Your task to perform on an android device: open app "DoorDash - Dasher" (install if not already installed) Image 0: 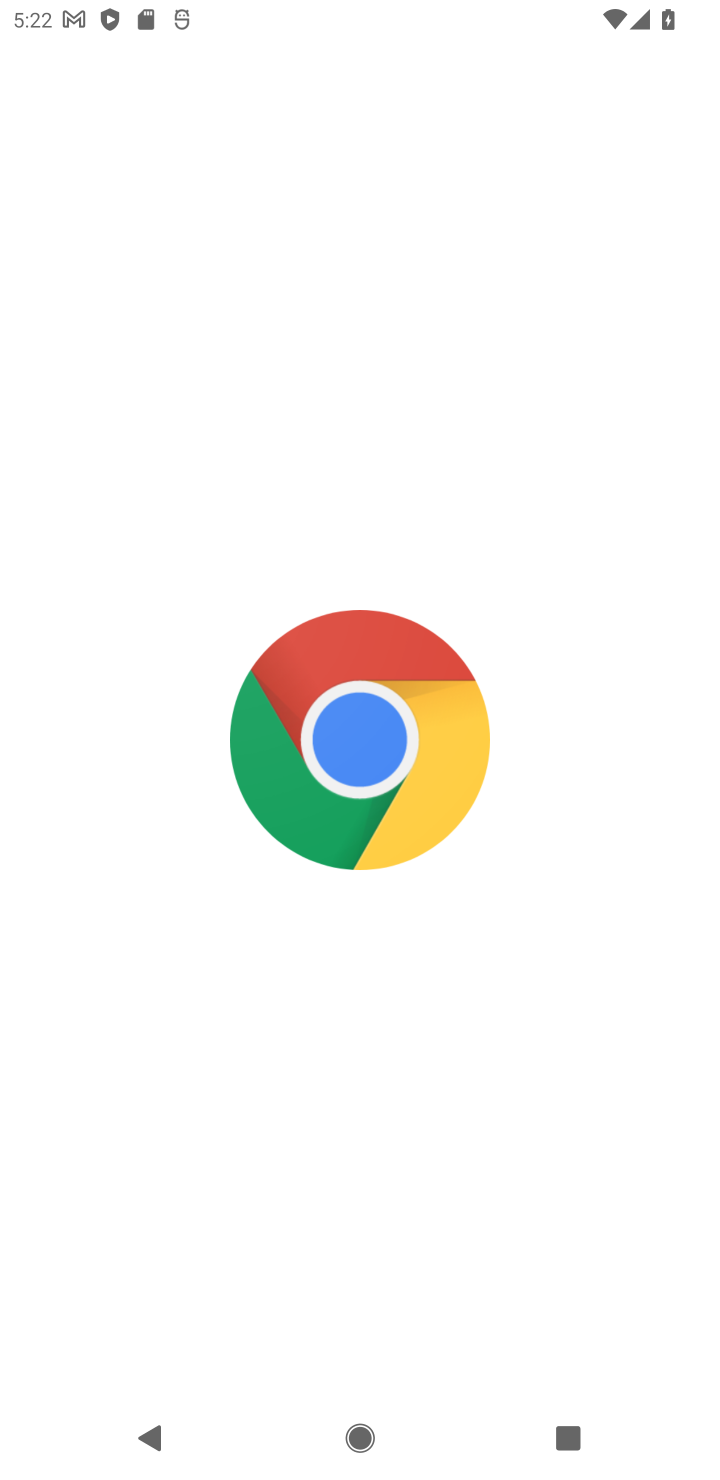
Step 0: press home button
Your task to perform on an android device: open app "DoorDash - Dasher" (install if not already installed) Image 1: 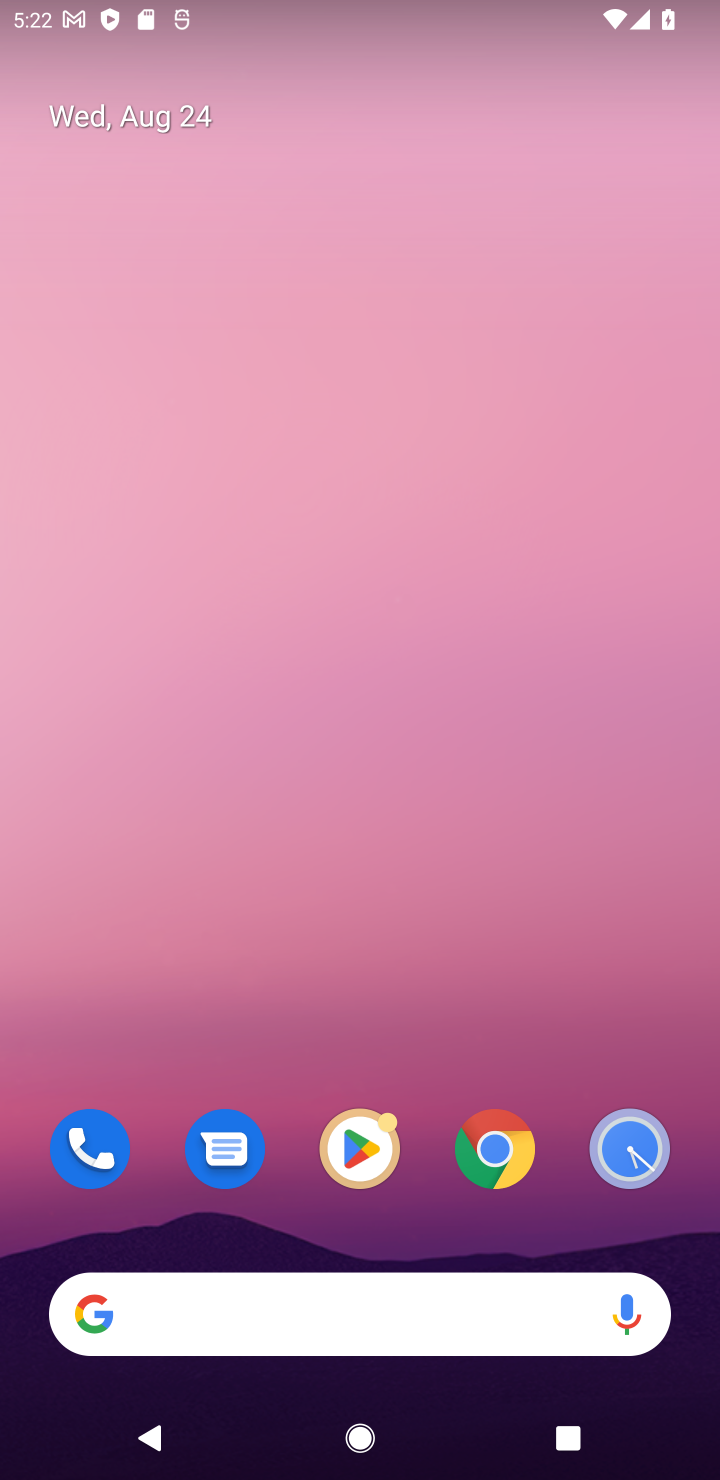
Step 1: click (353, 1151)
Your task to perform on an android device: open app "DoorDash - Dasher" (install if not already installed) Image 2: 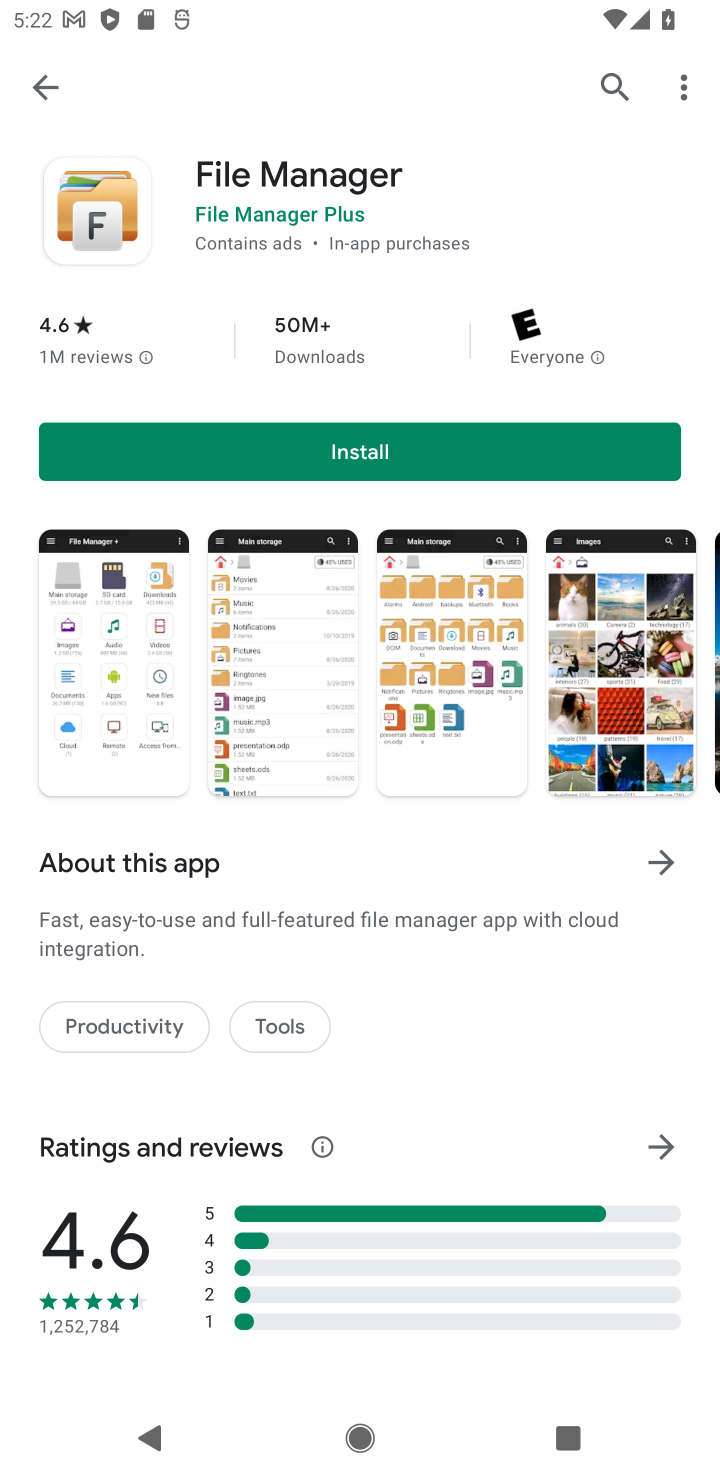
Step 2: click (611, 86)
Your task to perform on an android device: open app "DoorDash - Dasher" (install if not already installed) Image 3: 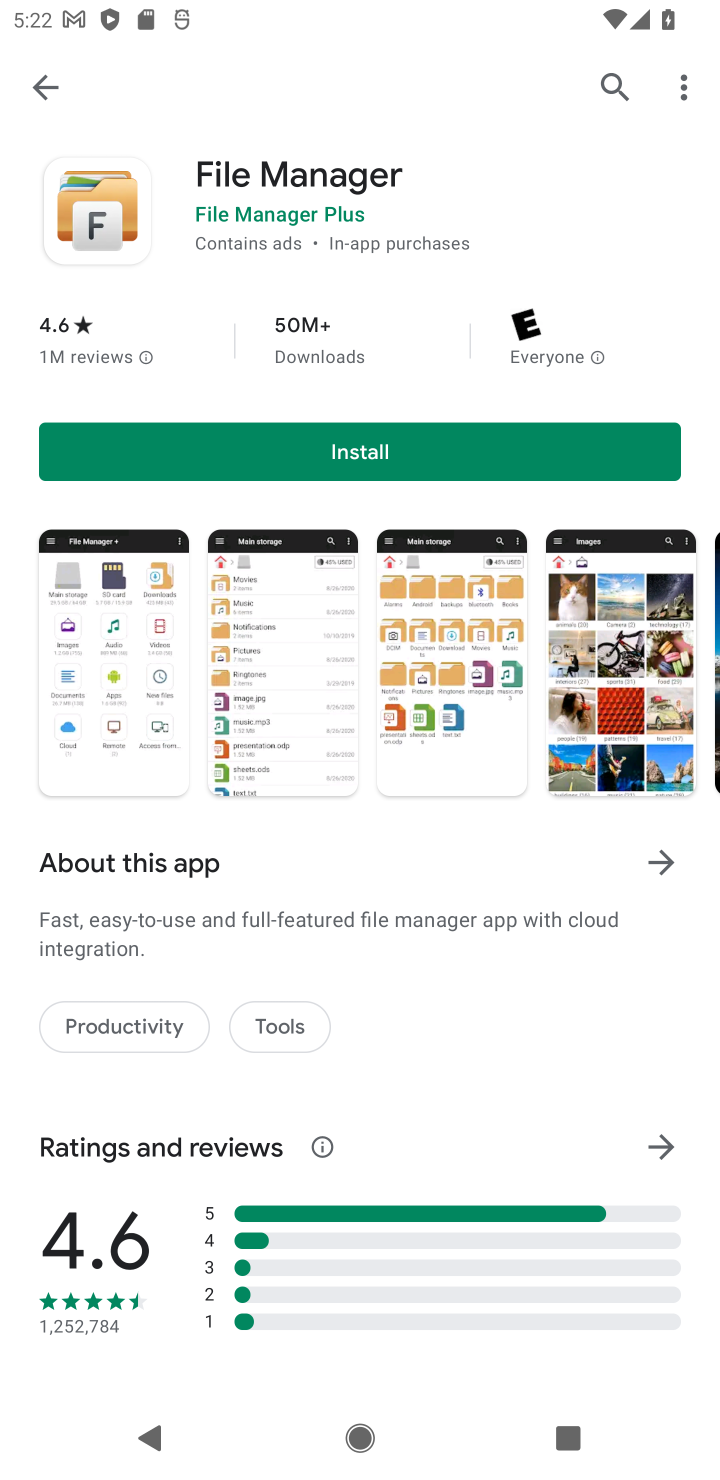
Step 3: click (609, 88)
Your task to perform on an android device: open app "DoorDash - Dasher" (install if not already installed) Image 4: 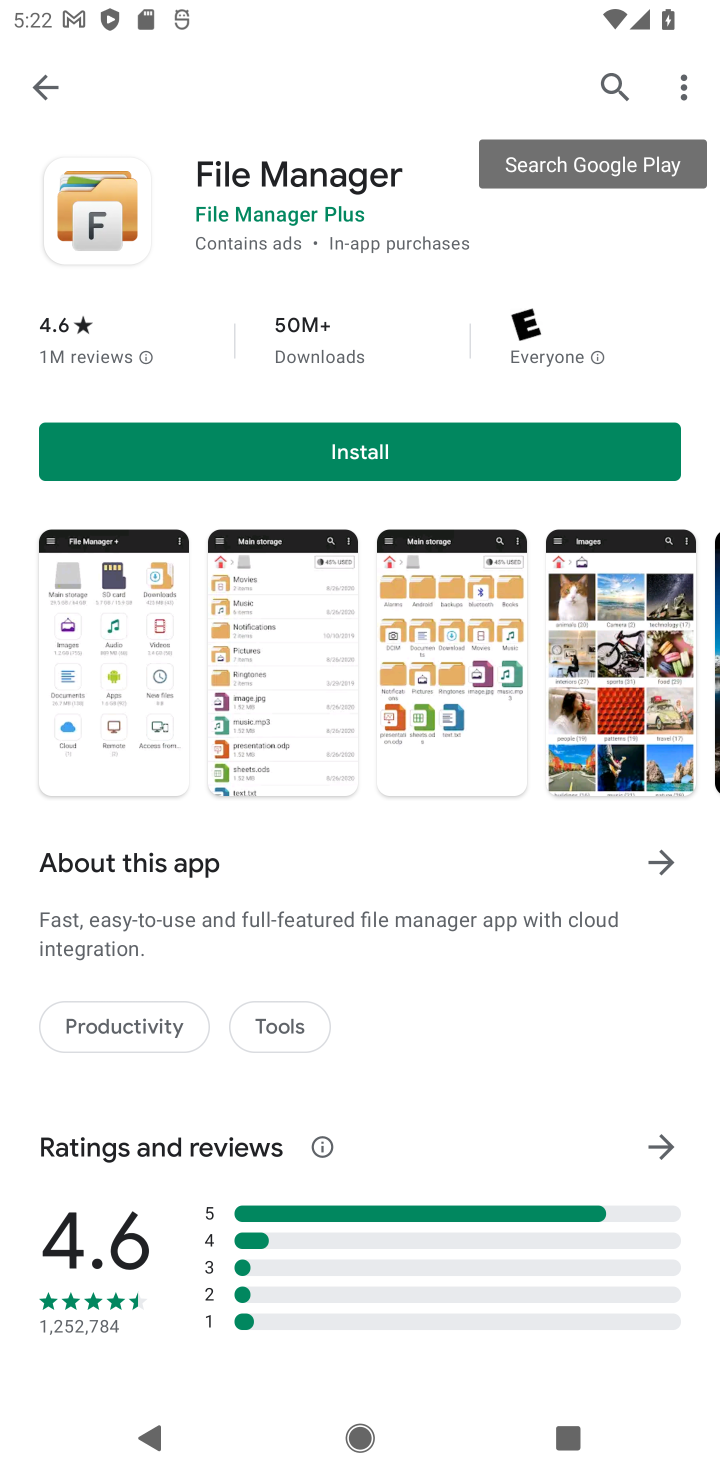
Step 4: click (607, 73)
Your task to perform on an android device: open app "DoorDash - Dasher" (install if not already installed) Image 5: 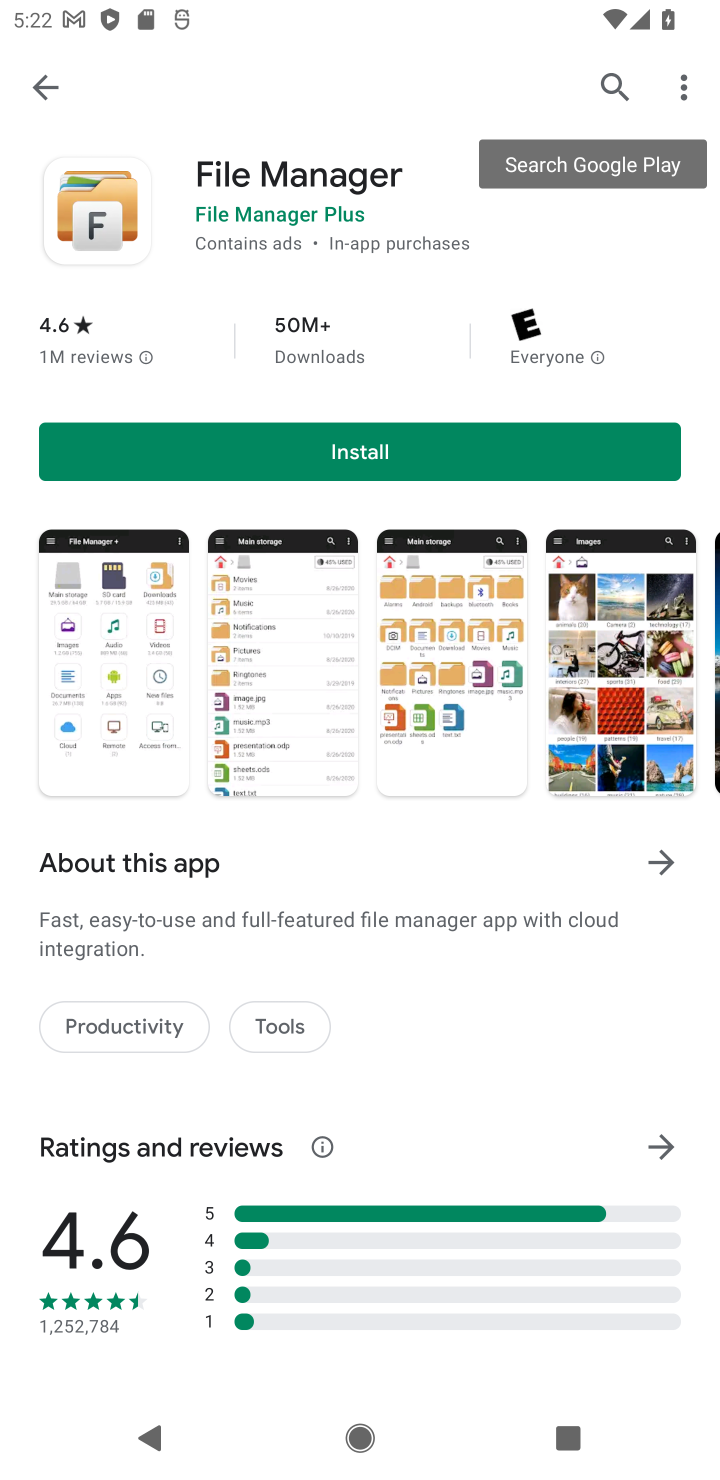
Step 5: click (607, 81)
Your task to perform on an android device: open app "DoorDash - Dasher" (install if not already installed) Image 6: 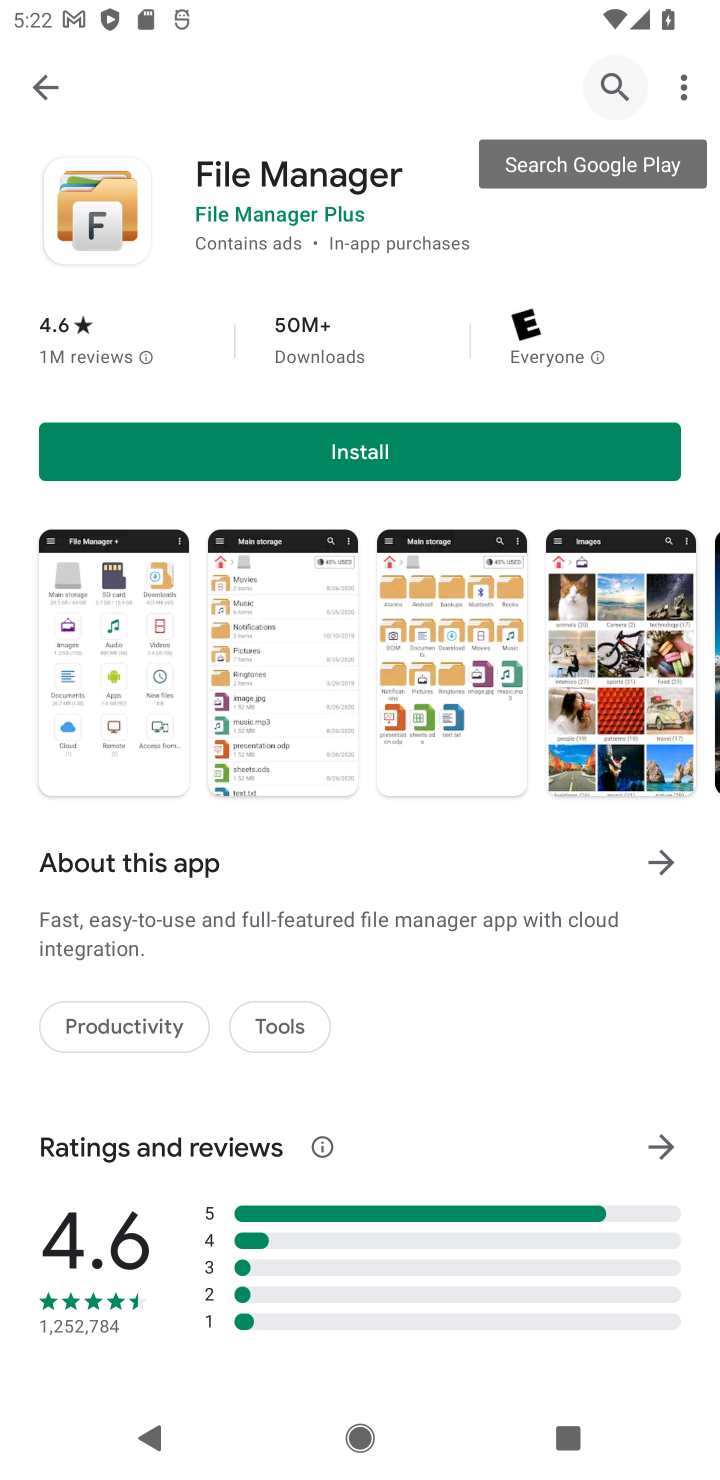
Step 6: click (570, 86)
Your task to perform on an android device: open app "DoorDash - Dasher" (install if not already installed) Image 7: 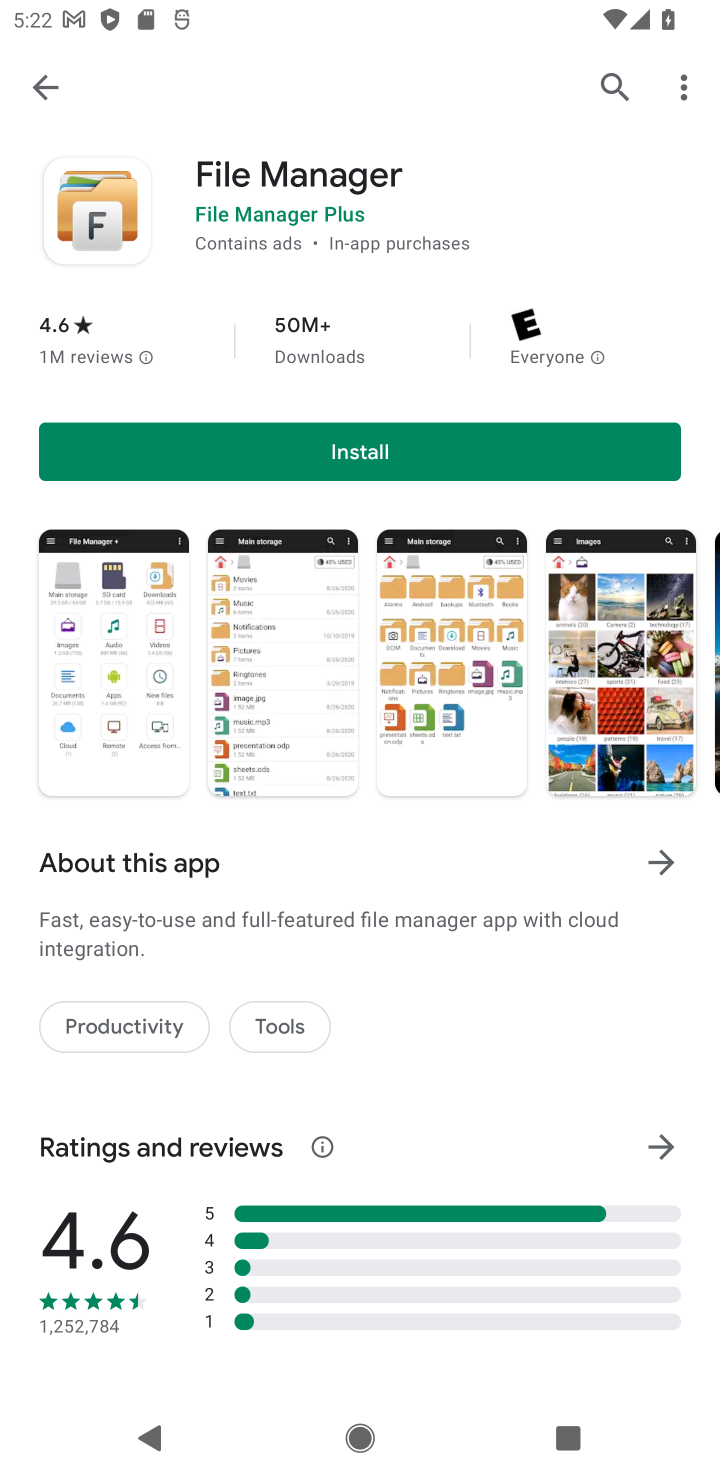
Step 7: click (585, 75)
Your task to perform on an android device: open app "DoorDash - Dasher" (install if not already installed) Image 8: 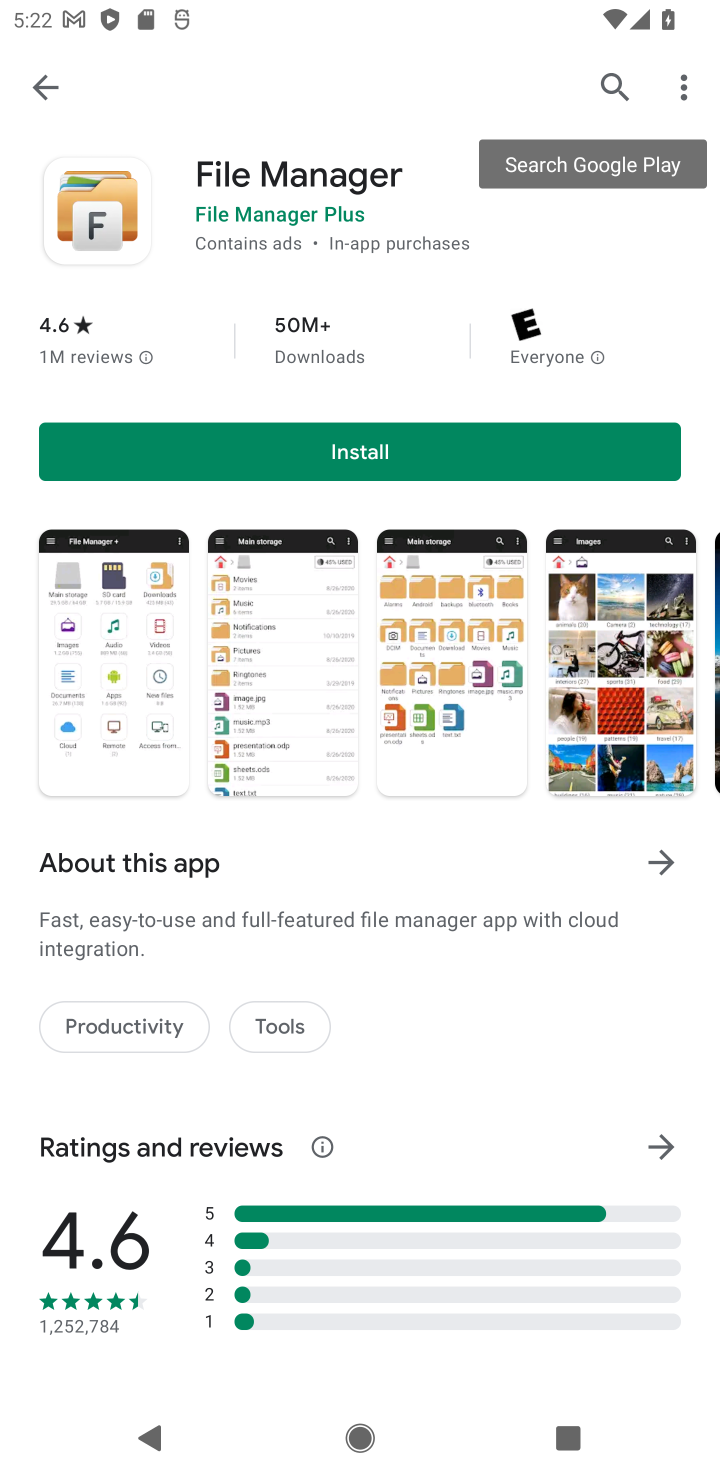
Step 8: click (598, 81)
Your task to perform on an android device: open app "DoorDash - Dasher" (install if not already installed) Image 9: 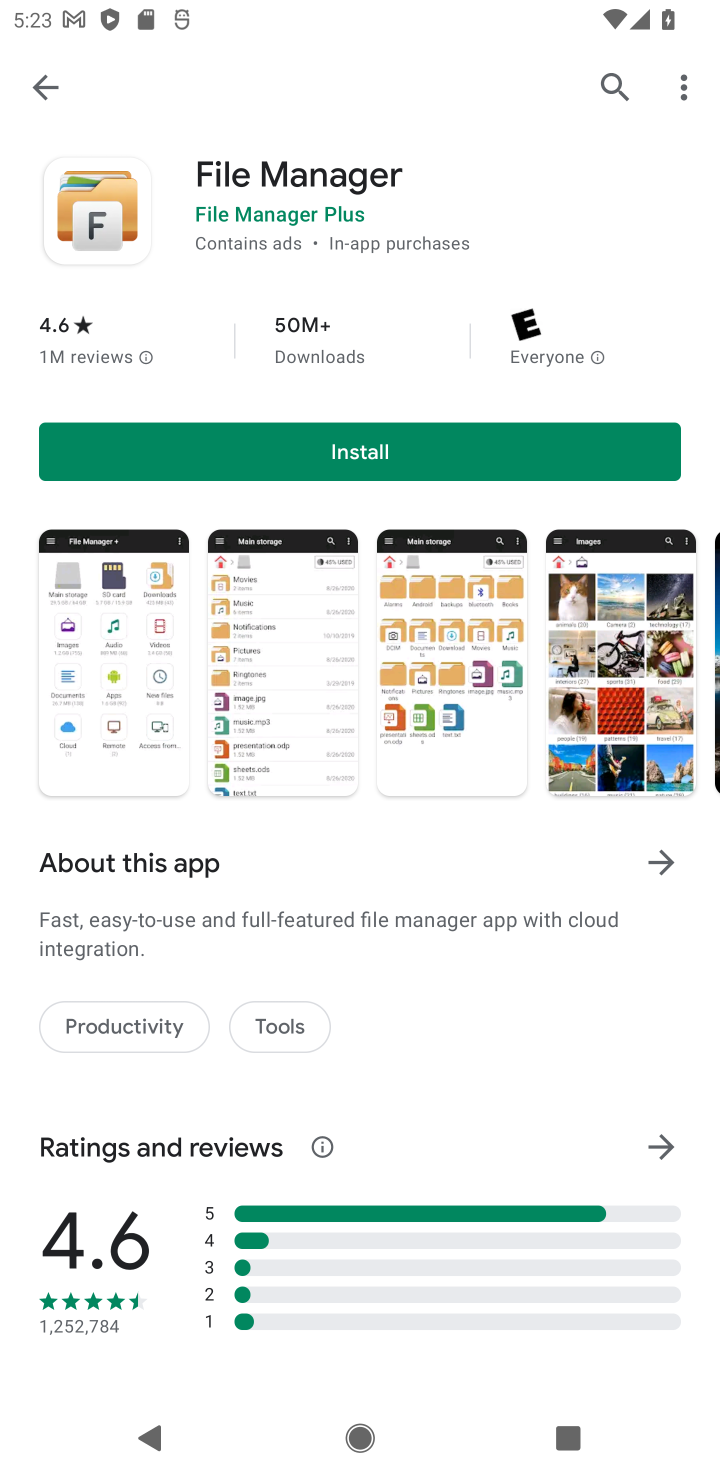
Step 9: press back button
Your task to perform on an android device: open app "DoorDash - Dasher" (install if not already installed) Image 10: 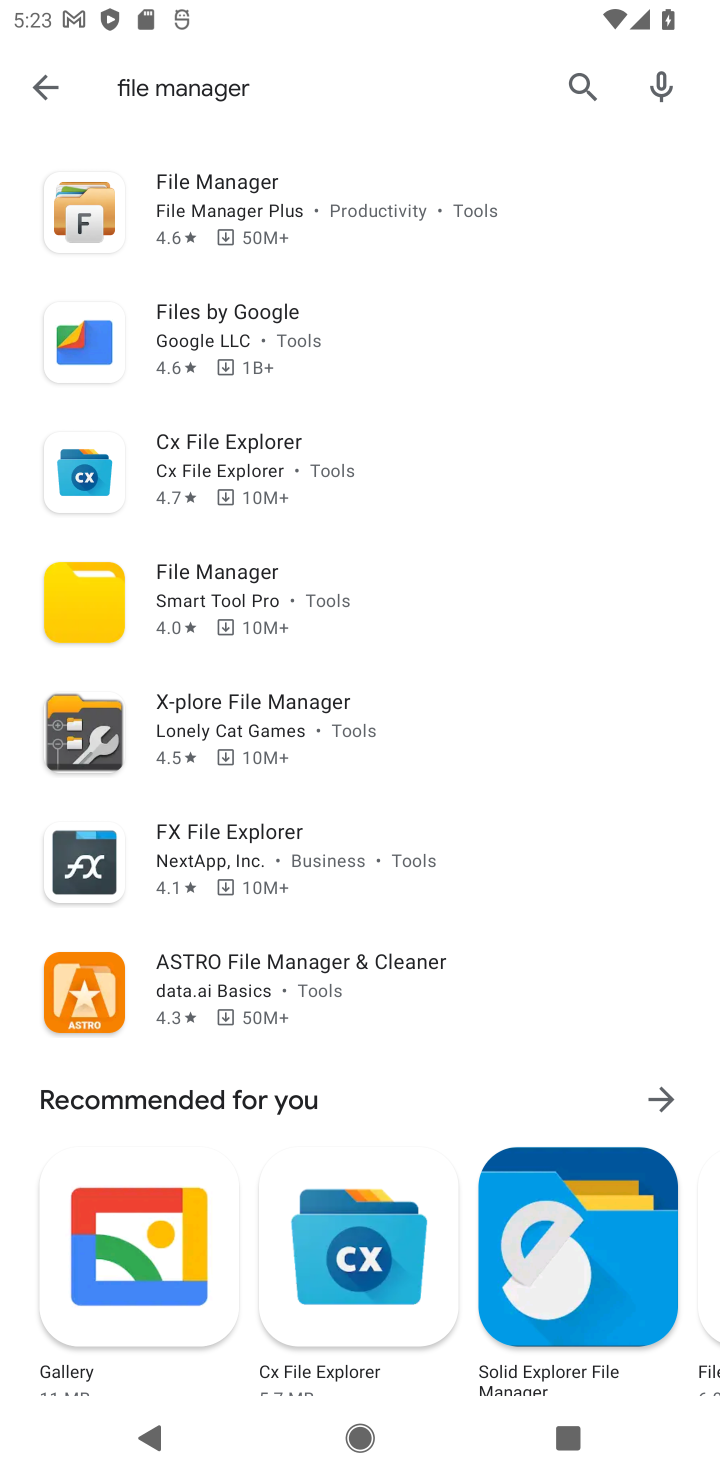
Step 10: click (572, 80)
Your task to perform on an android device: open app "DoorDash - Dasher" (install if not already installed) Image 11: 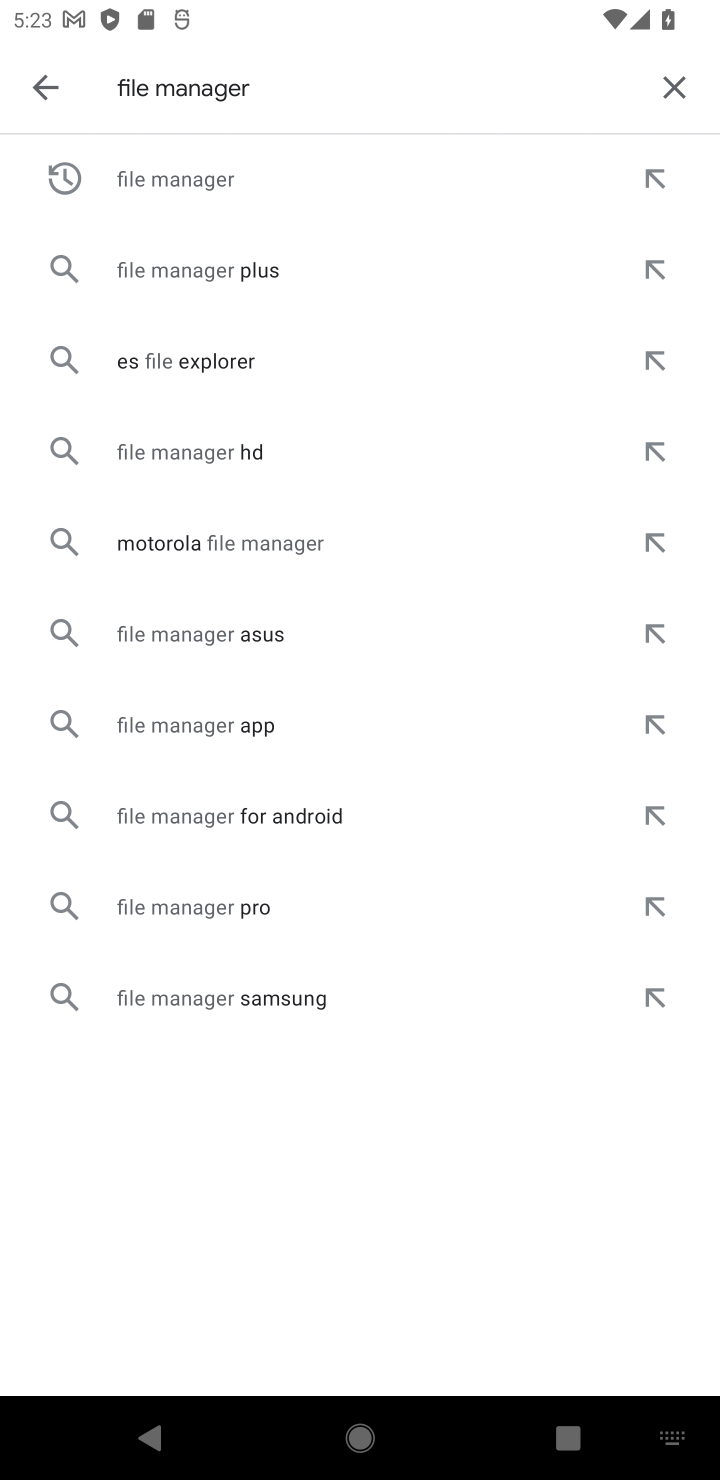
Step 11: click (674, 85)
Your task to perform on an android device: open app "DoorDash - Dasher" (install if not already installed) Image 12: 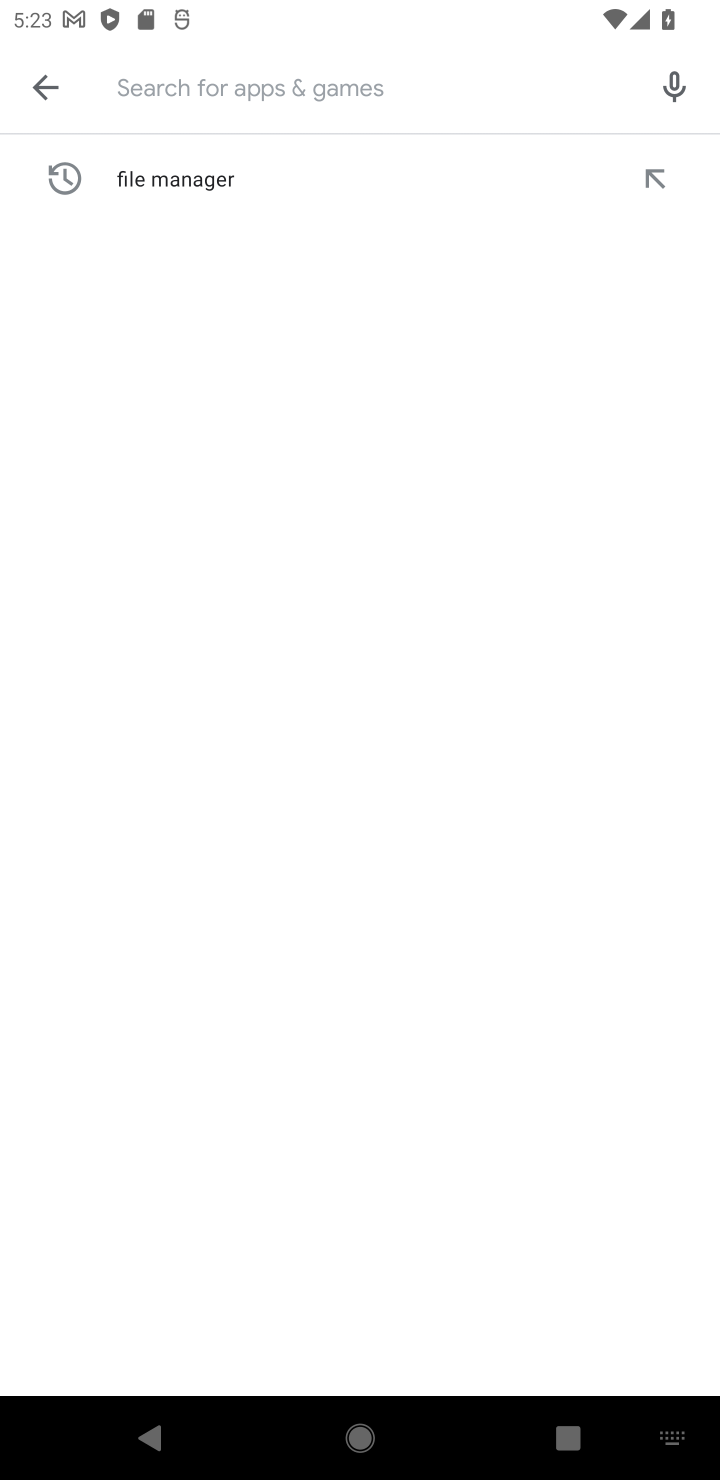
Step 12: type "DoorDash - Dasher"
Your task to perform on an android device: open app "DoorDash - Dasher" (install if not already installed) Image 13: 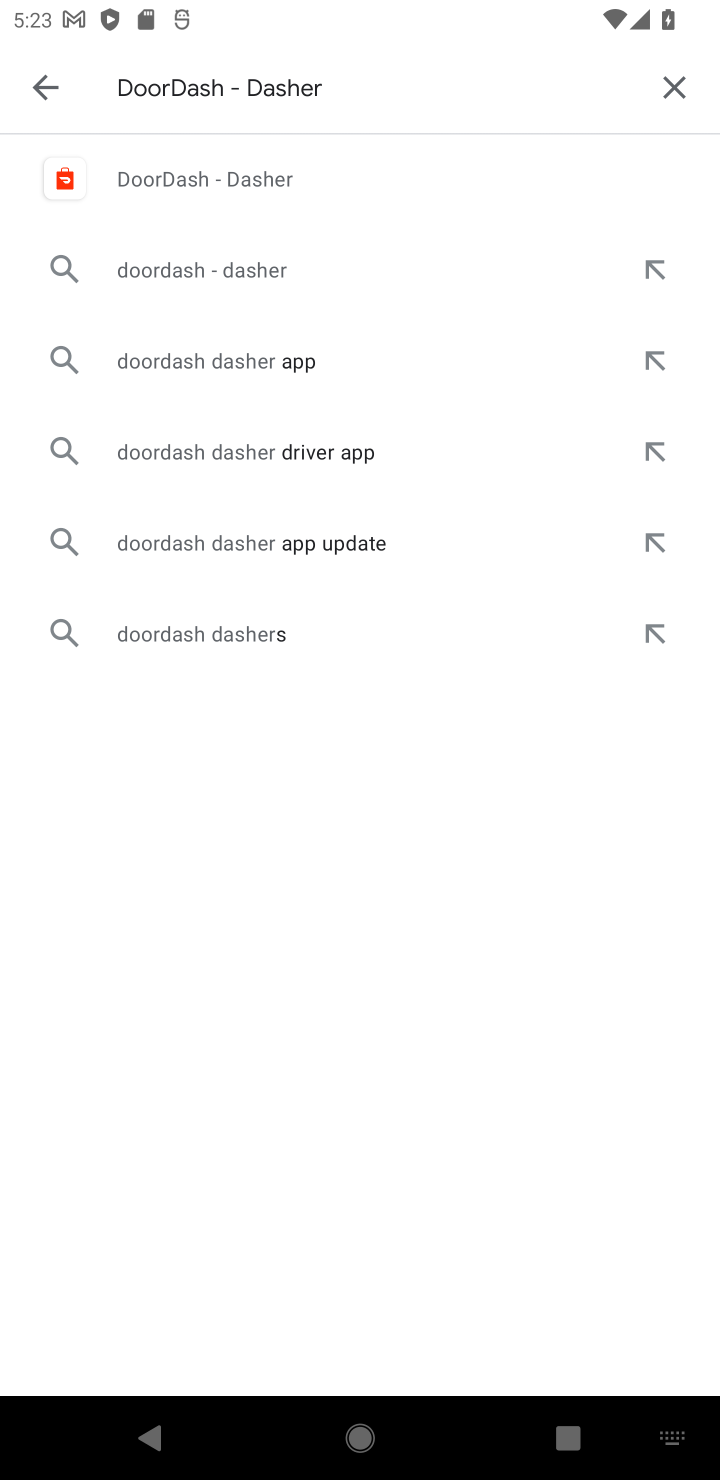
Step 13: click (231, 184)
Your task to perform on an android device: open app "DoorDash - Dasher" (install if not already installed) Image 14: 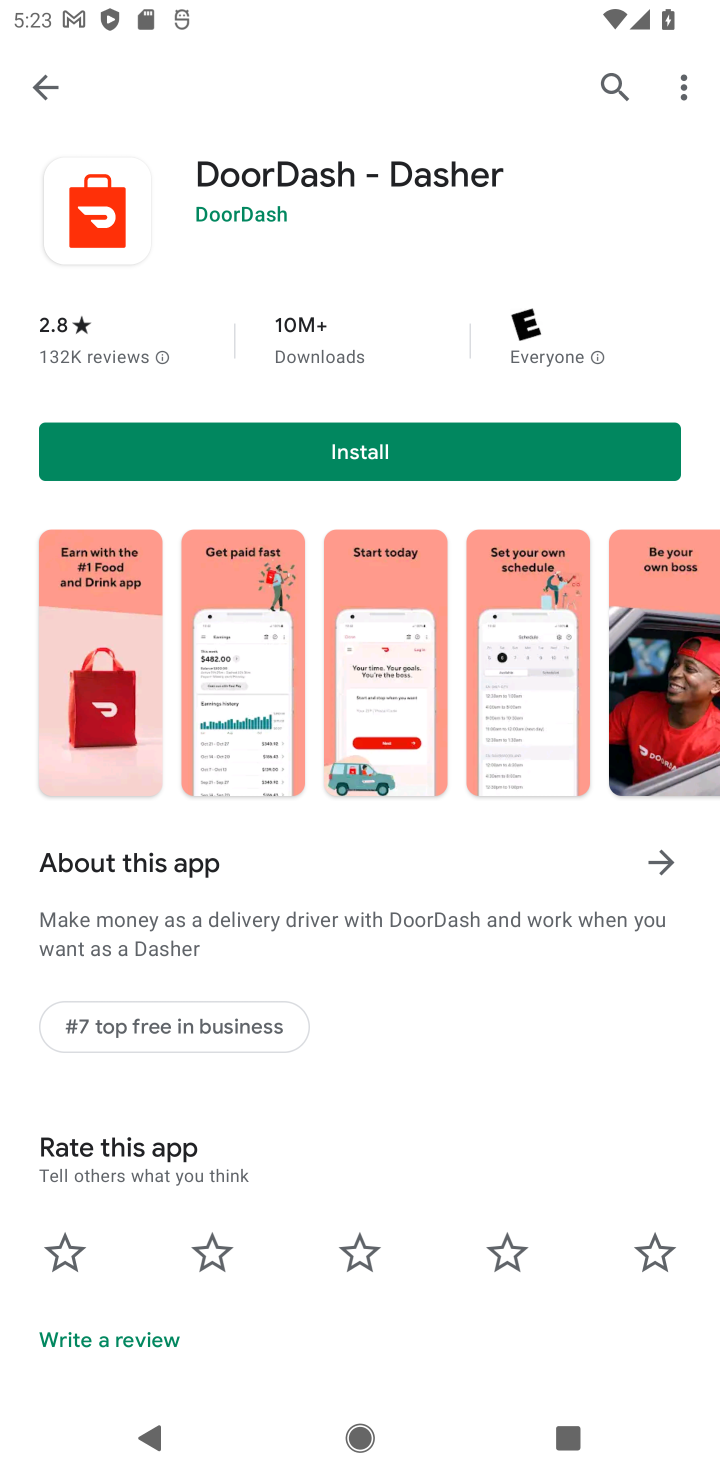
Step 14: click (349, 452)
Your task to perform on an android device: open app "DoorDash - Dasher" (install if not already installed) Image 15: 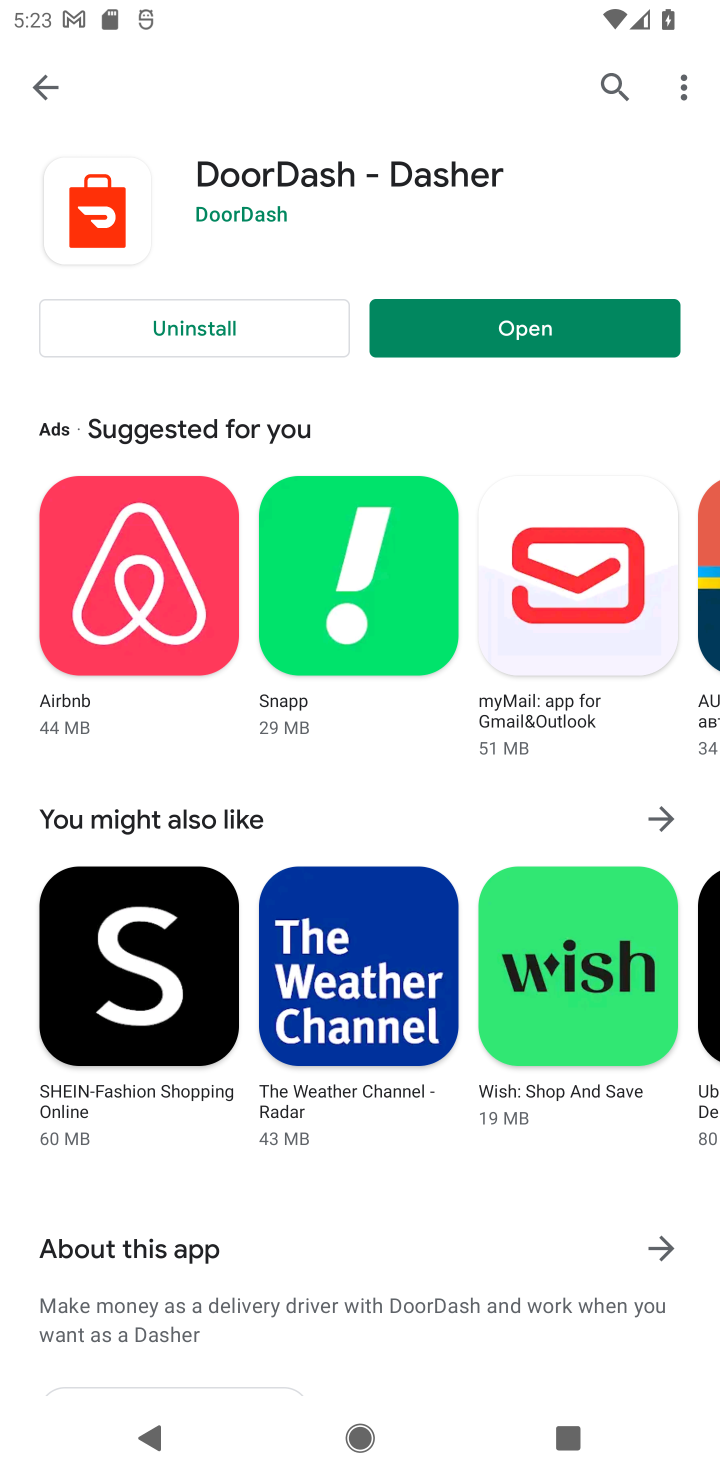
Step 15: click (525, 333)
Your task to perform on an android device: open app "DoorDash - Dasher" (install if not already installed) Image 16: 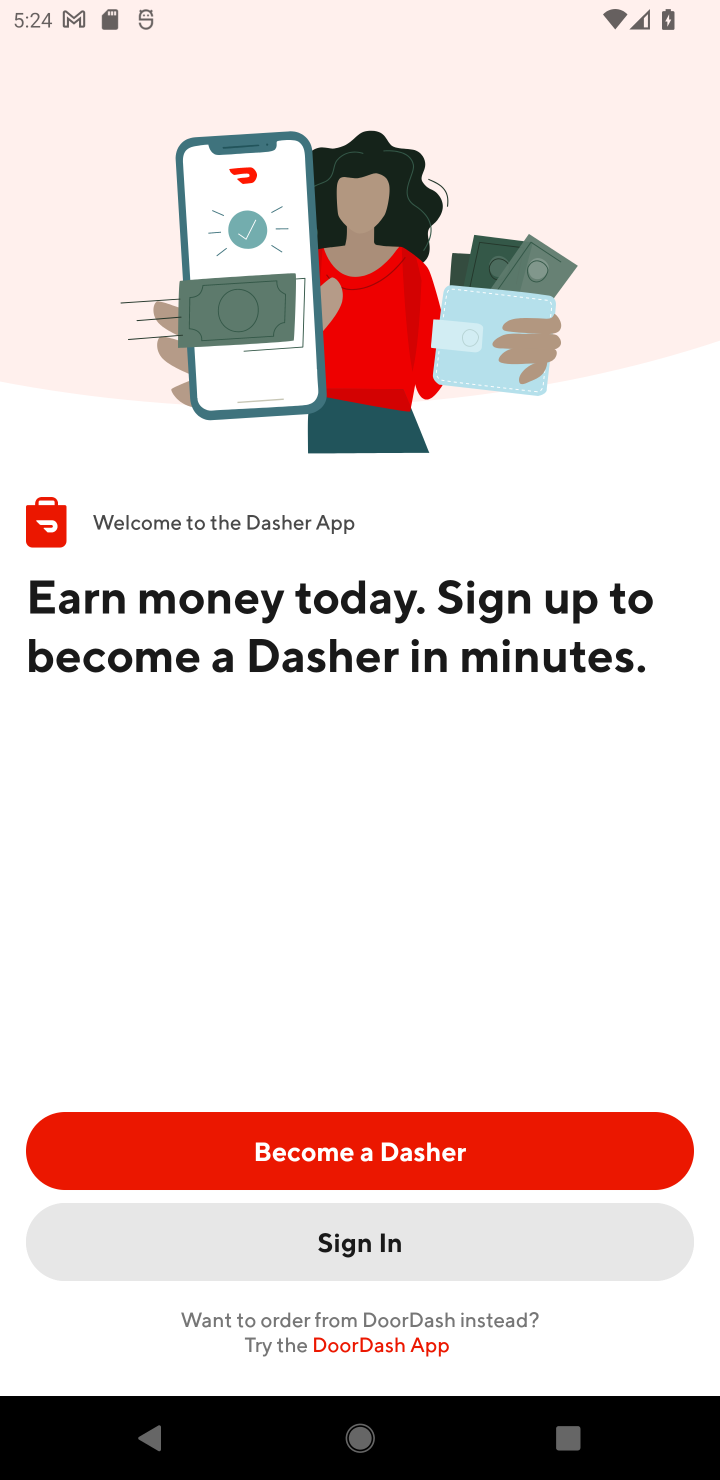
Step 16: task complete